Your task to perform on an android device: Go to Yahoo.com Image 0: 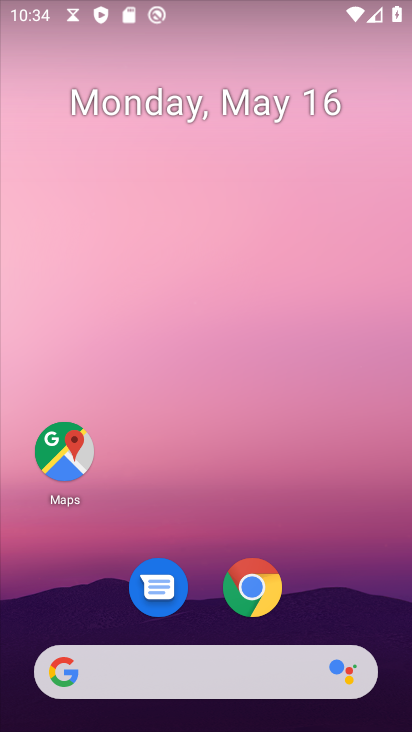
Step 0: drag from (325, 594) to (230, 36)
Your task to perform on an android device: Go to Yahoo.com Image 1: 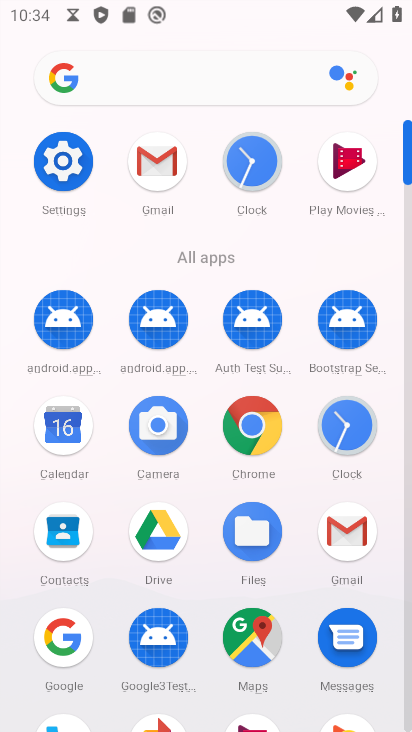
Step 1: drag from (7, 571) to (9, 184)
Your task to perform on an android device: Go to Yahoo.com Image 2: 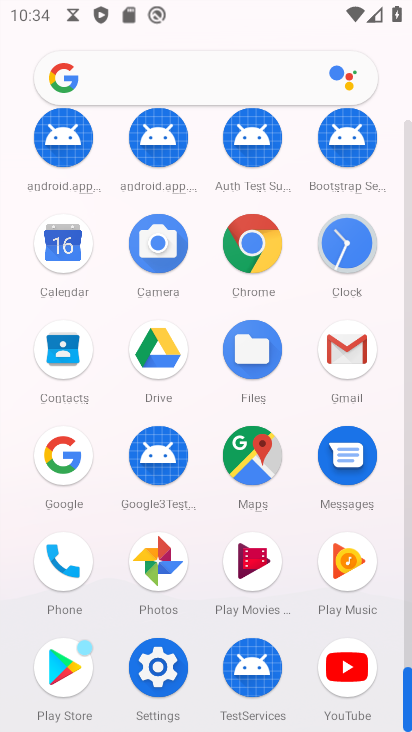
Step 2: click (250, 240)
Your task to perform on an android device: Go to Yahoo.com Image 3: 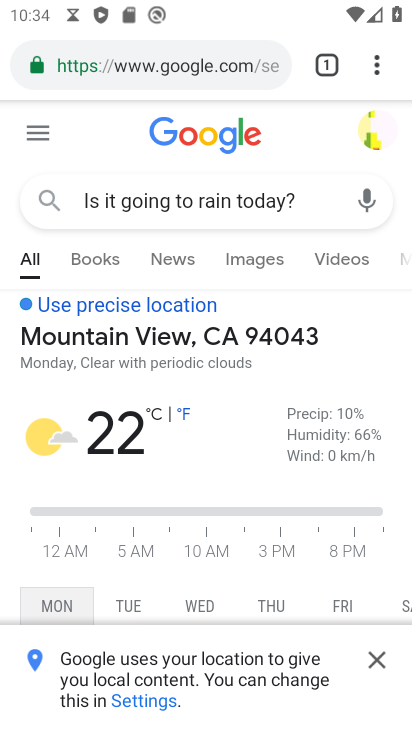
Step 3: click (192, 77)
Your task to perform on an android device: Go to Yahoo.com Image 4: 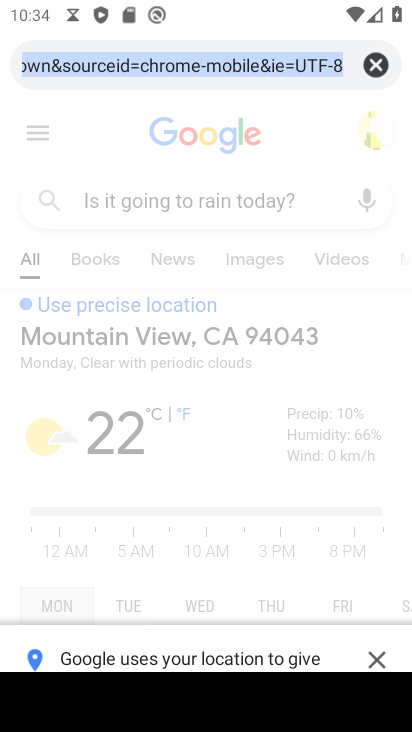
Step 4: click (380, 66)
Your task to perform on an android device: Go to Yahoo.com Image 5: 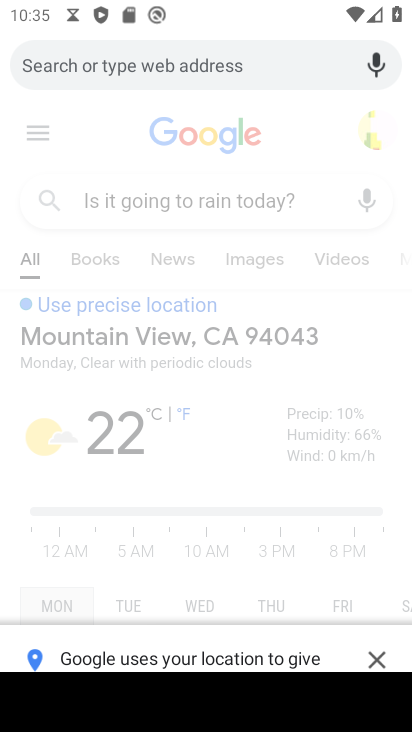
Step 5: type "Yahoo.com"
Your task to perform on an android device: Go to Yahoo.com Image 6: 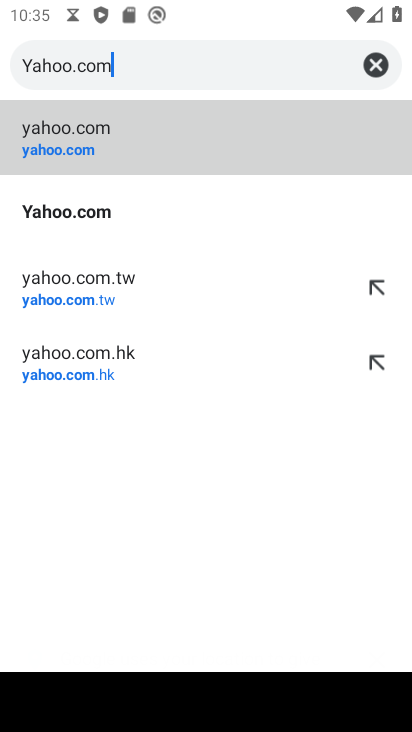
Step 6: click (147, 131)
Your task to perform on an android device: Go to Yahoo.com Image 7: 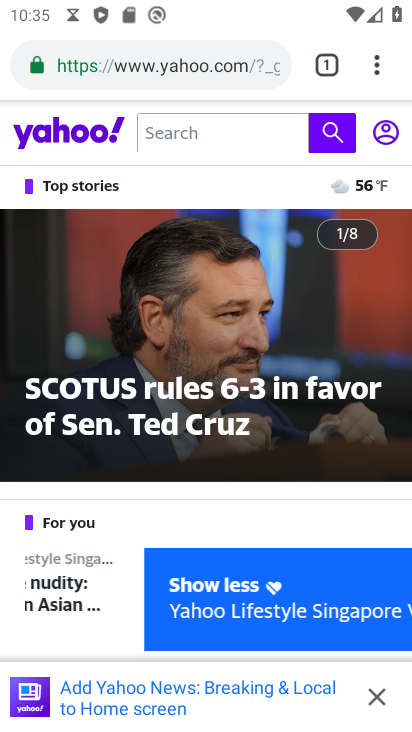
Step 7: task complete